Your task to perform on an android device: Open CNN.com Image 0: 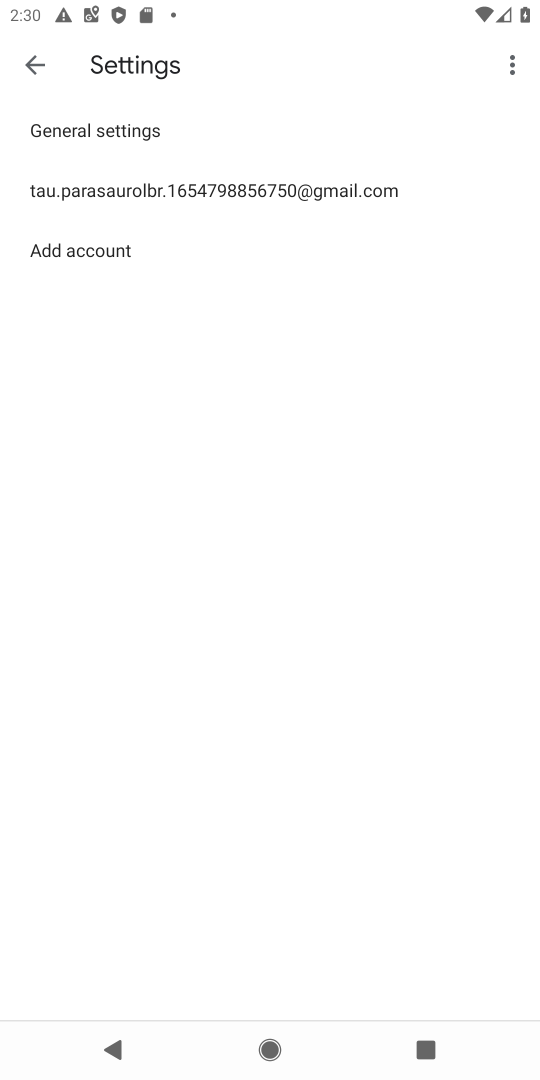
Step 0: press back button
Your task to perform on an android device: Open CNN.com Image 1: 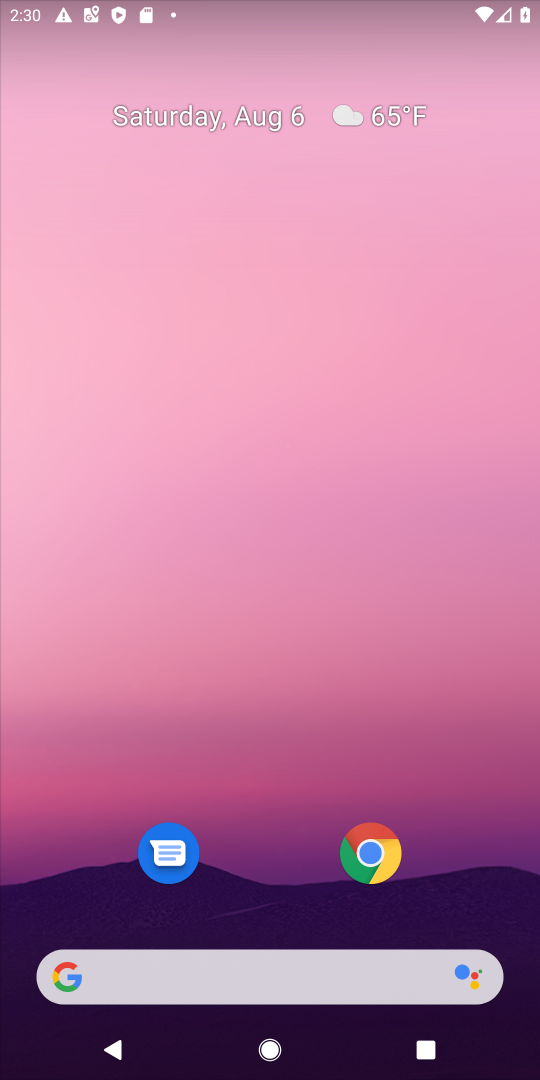
Step 1: click (359, 853)
Your task to perform on an android device: Open CNN.com Image 2: 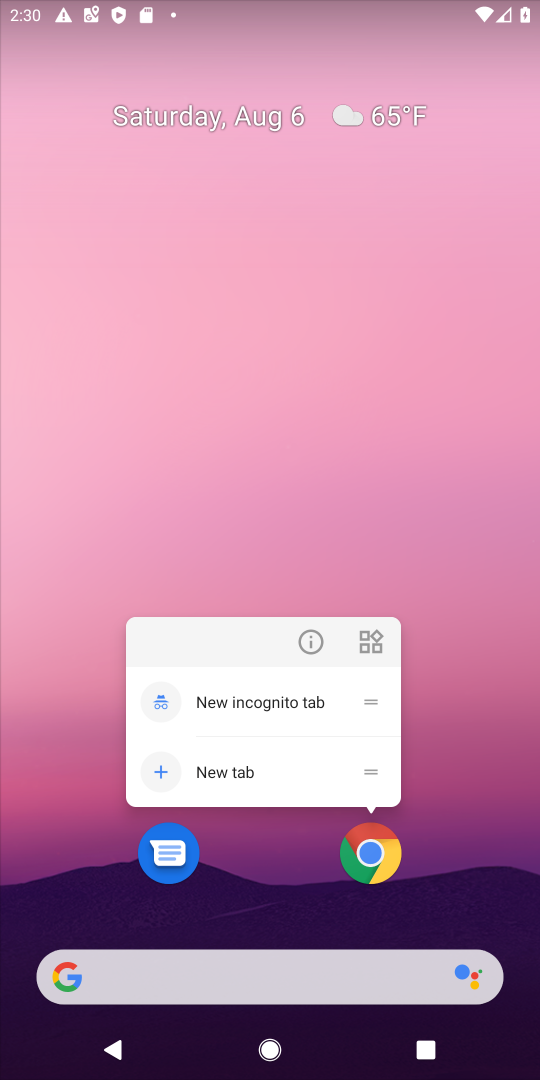
Step 2: click (361, 860)
Your task to perform on an android device: Open CNN.com Image 3: 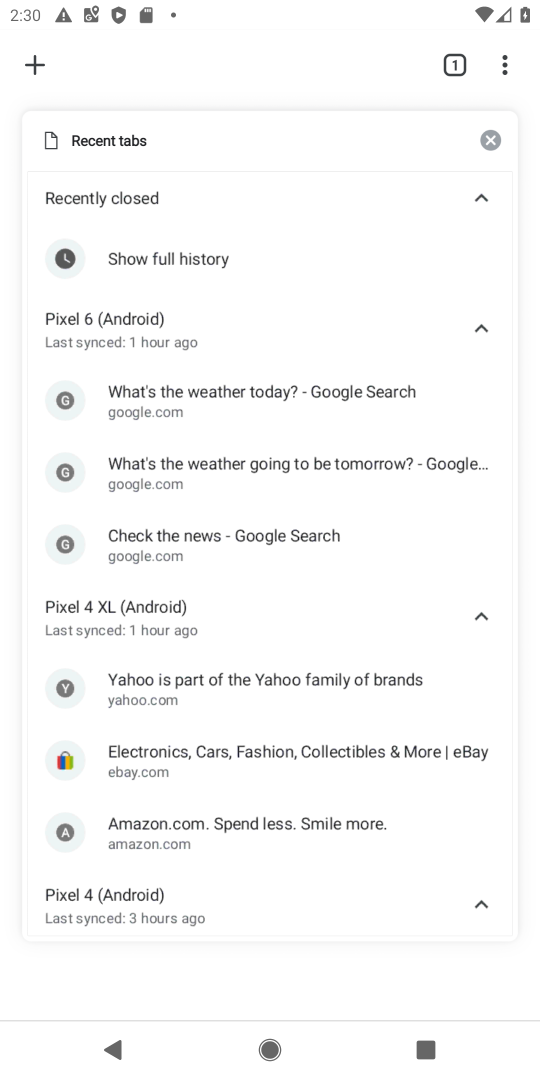
Step 3: click (30, 56)
Your task to perform on an android device: Open CNN.com Image 4: 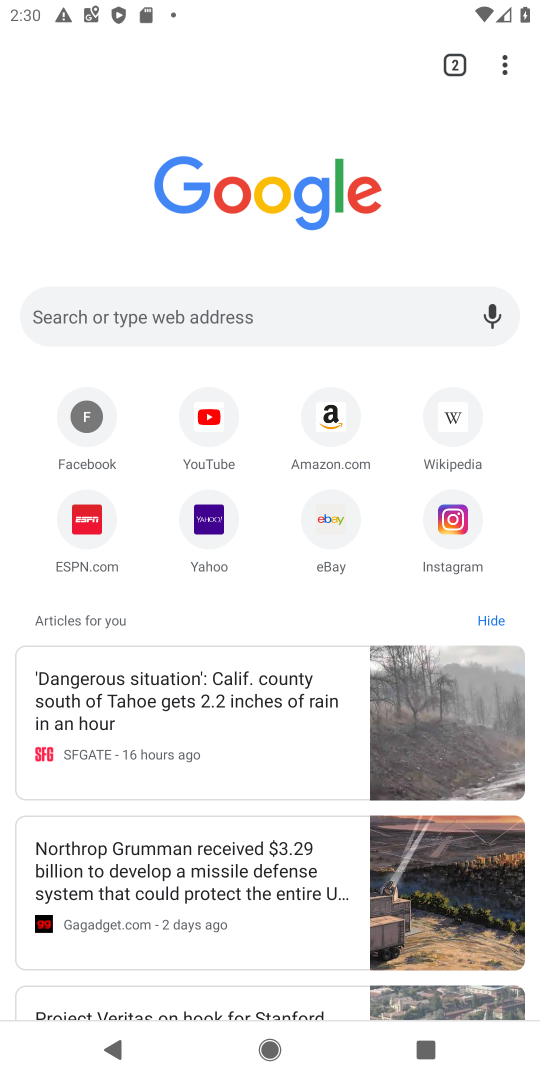
Step 4: click (168, 321)
Your task to perform on an android device: Open CNN.com Image 5: 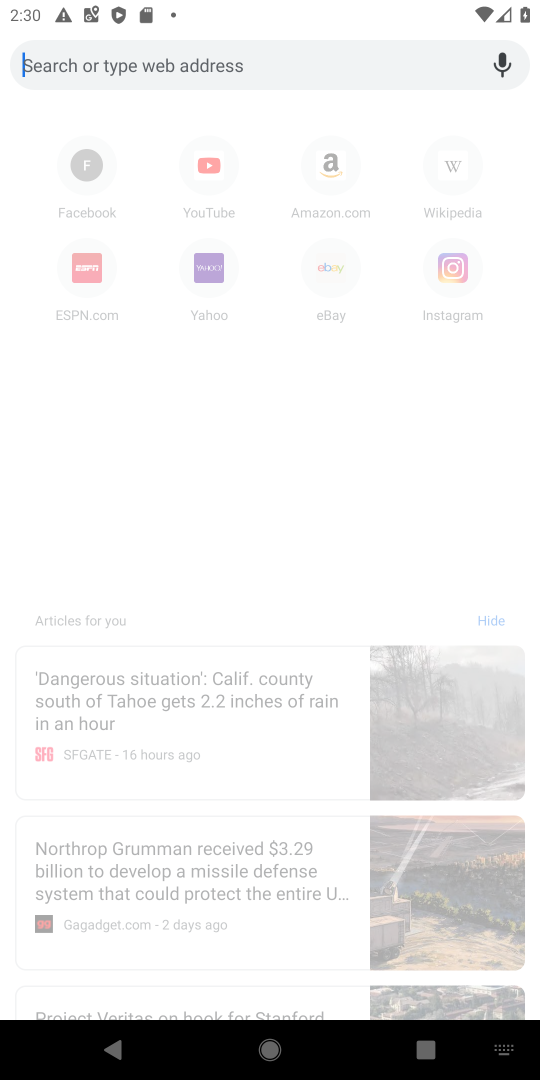
Step 5: type "cnn.com"
Your task to perform on an android device: Open CNN.com Image 6: 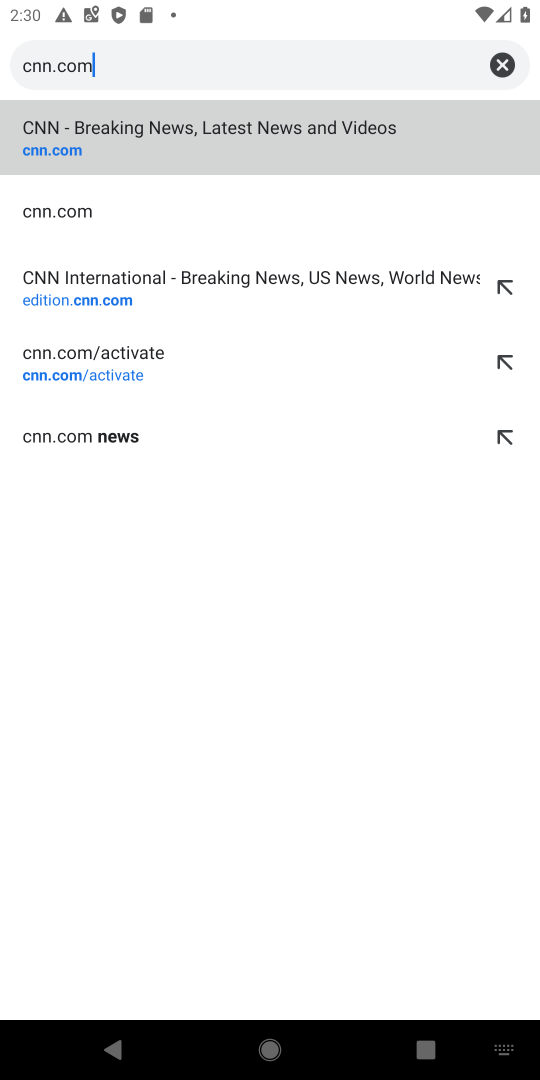
Step 6: click (244, 144)
Your task to perform on an android device: Open CNN.com Image 7: 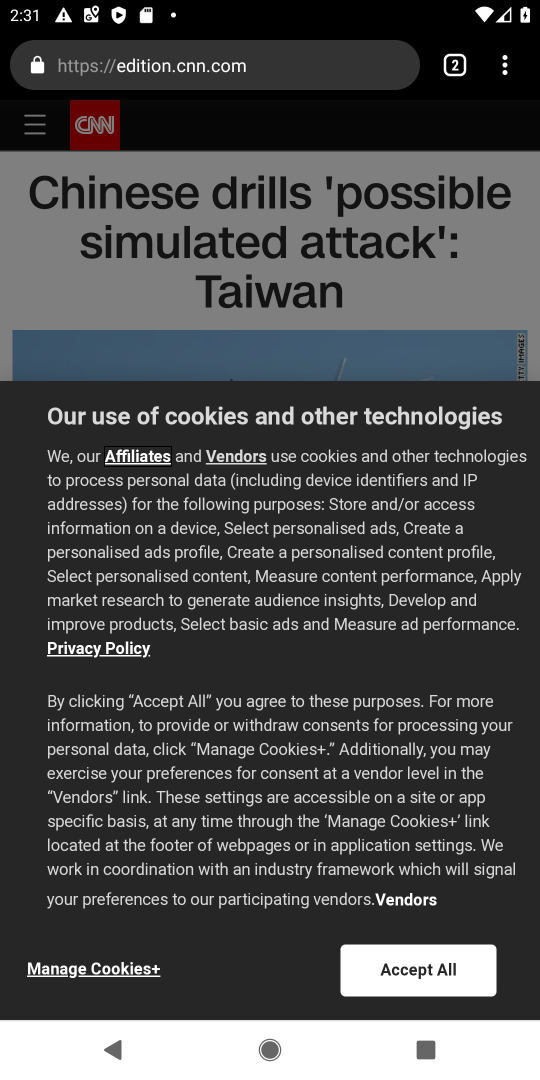
Step 7: task complete